Your task to perform on an android device: Go to notification settings Image 0: 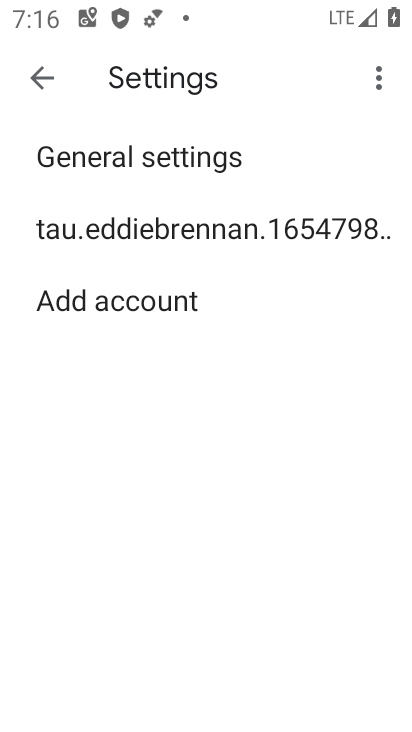
Step 0: press back button
Your task to perform on an android device: Go to notification settings Image 1: 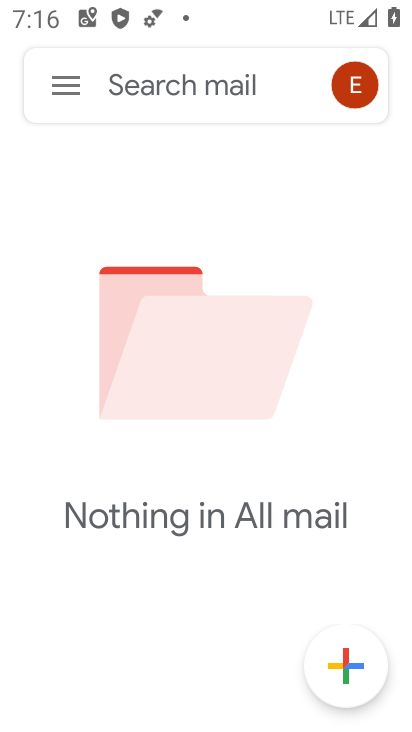
Step 1: press back button
Your task to perform on an android device: Go to notification settings Image 2: 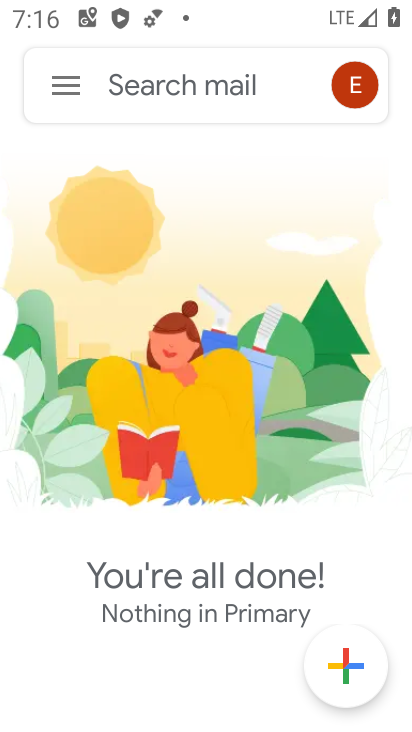
Step 2: press back button
Your task to perform on an android device: Go to notification settings Image 3: 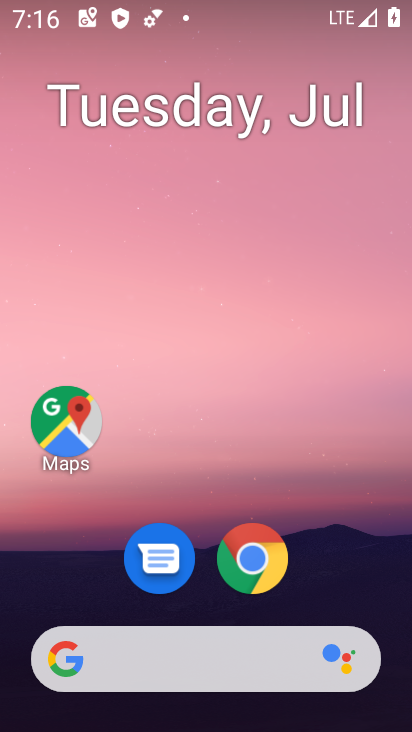
Step 3: drag from (210, 595) to (190, 16)
Your task to perform on an android device: Go to notification settings Image 4: 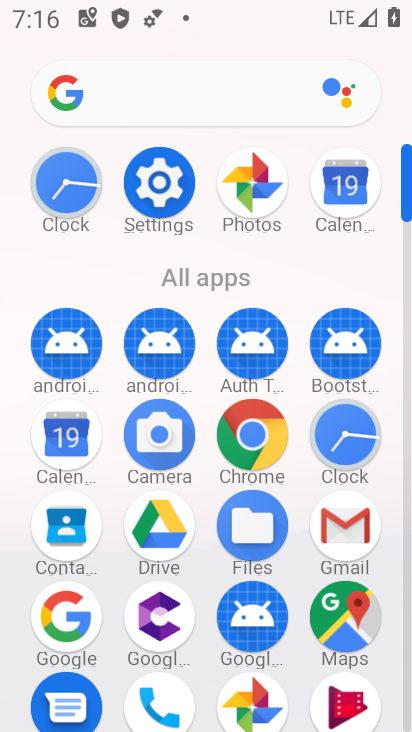
Step 4: click (161, 186)
Your task to perform on an android device: Go to notification settings Image 5: 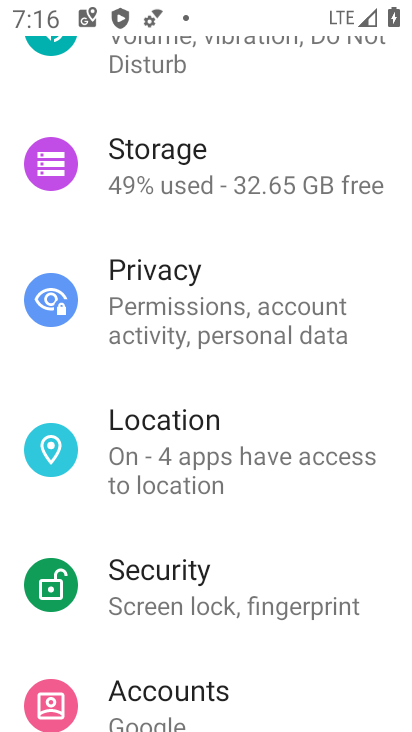
Step 5: drag from (287, 157) to (129, 705)
Your task to perform on an android device: Go to notification settings Image 6: 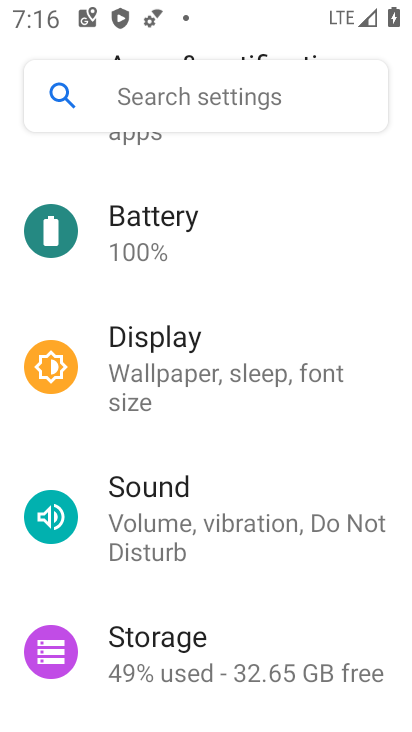
Step 6: drag from (214, 208) to (244, 730)
Your task to perform on an android device: Go to notification settings Image 7: 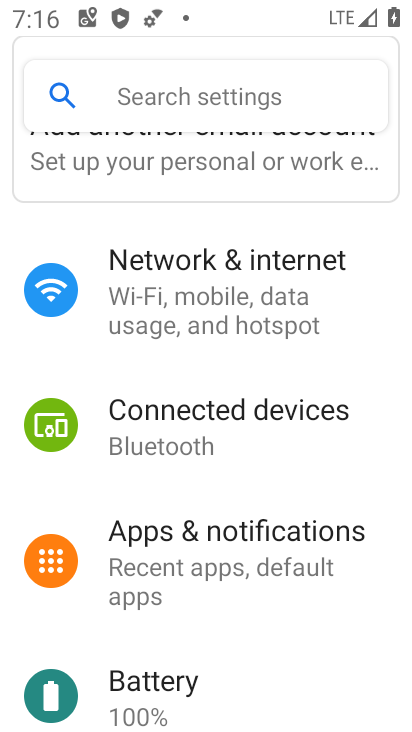
Step 7: click (217, 522)
Your task to perform on an android device: Go to notification settings Image 8: 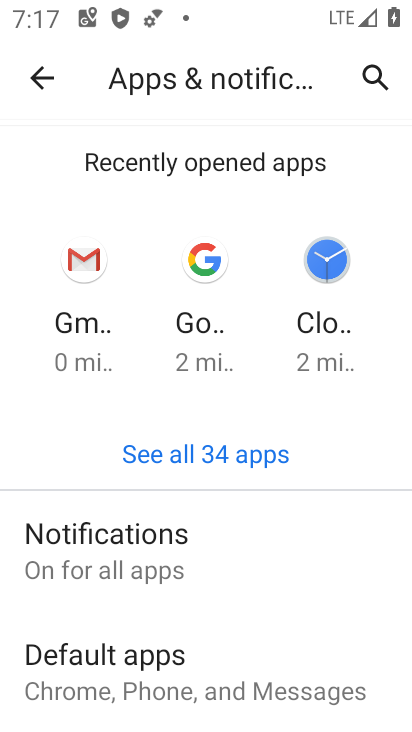
Step 8: click (186, 545)
Your task to perform on an android device: Go to notification settings Image 9: 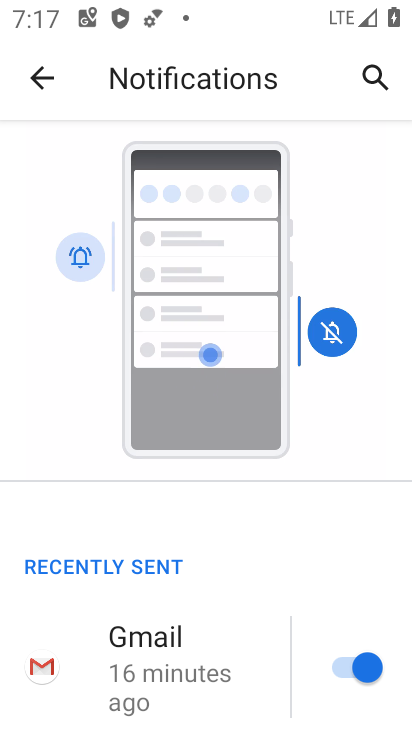
Step 9: task complete